Your task to perform on an android device: turn off airplane mode Image 0: 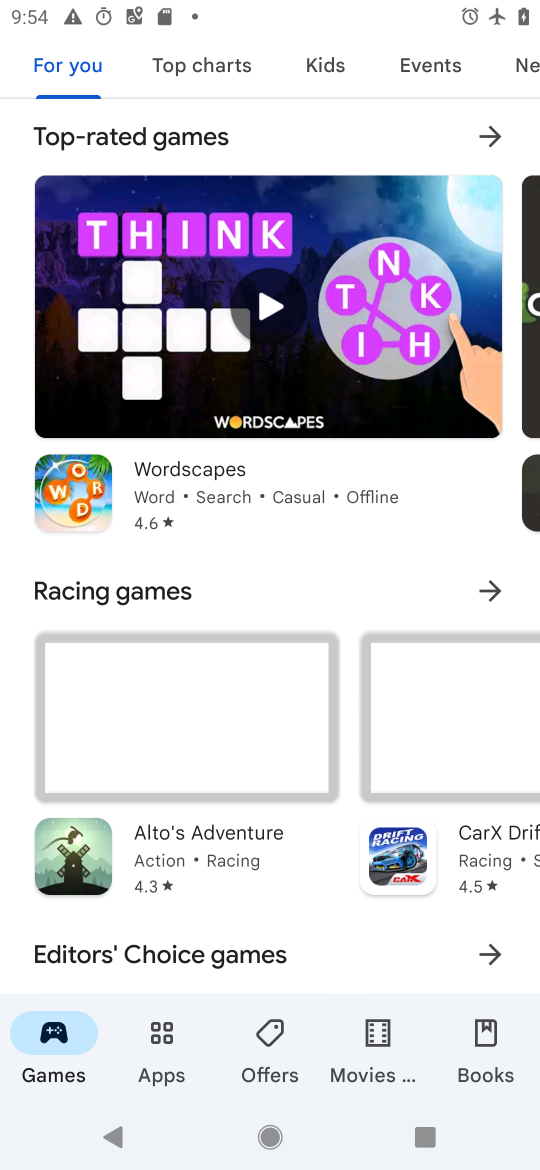
Step 0: press home button
Your task to perform on an android device: turn off airplane mode Image 1: 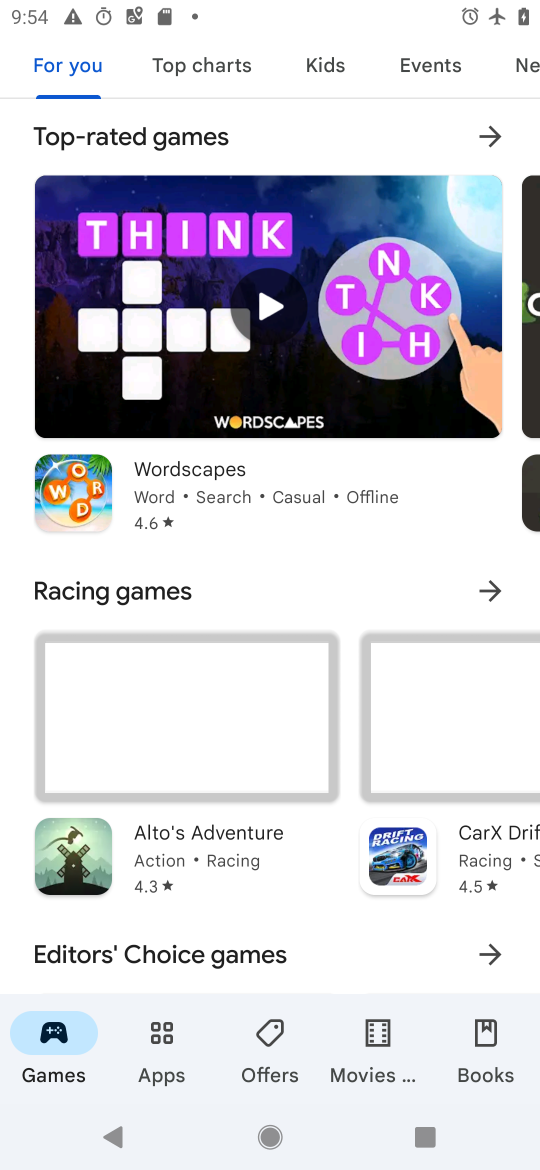
Step 1: drag from (349, 951) to (353, 206)
Your task to perform on an android device: turn off airplane mode Image 2: 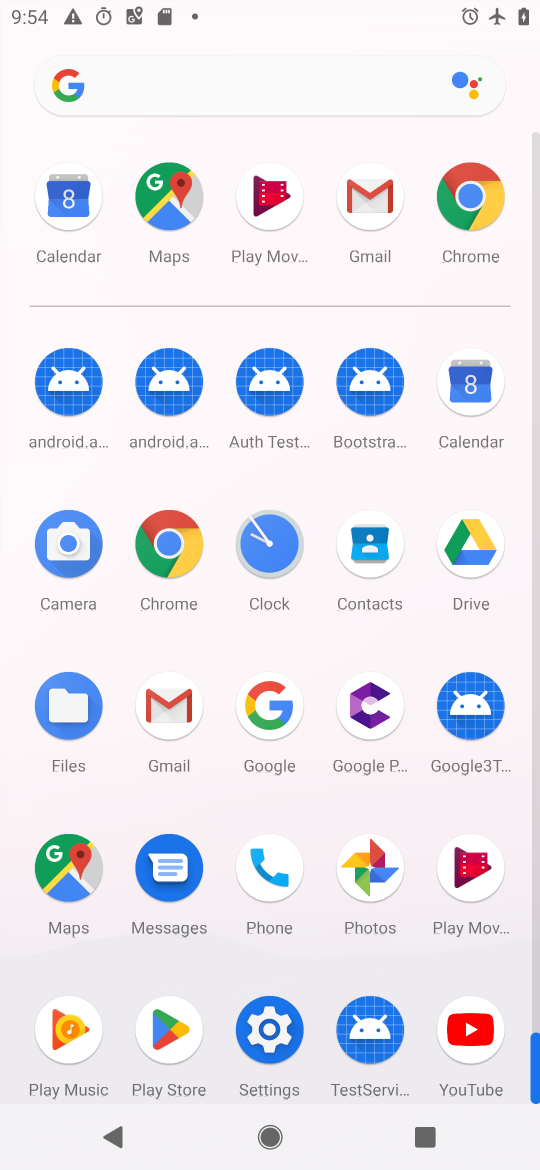
Step 2: drag from (308, 959) to (317, 250)
Your task to perform on an android device: turn off airplane mode Image 3: 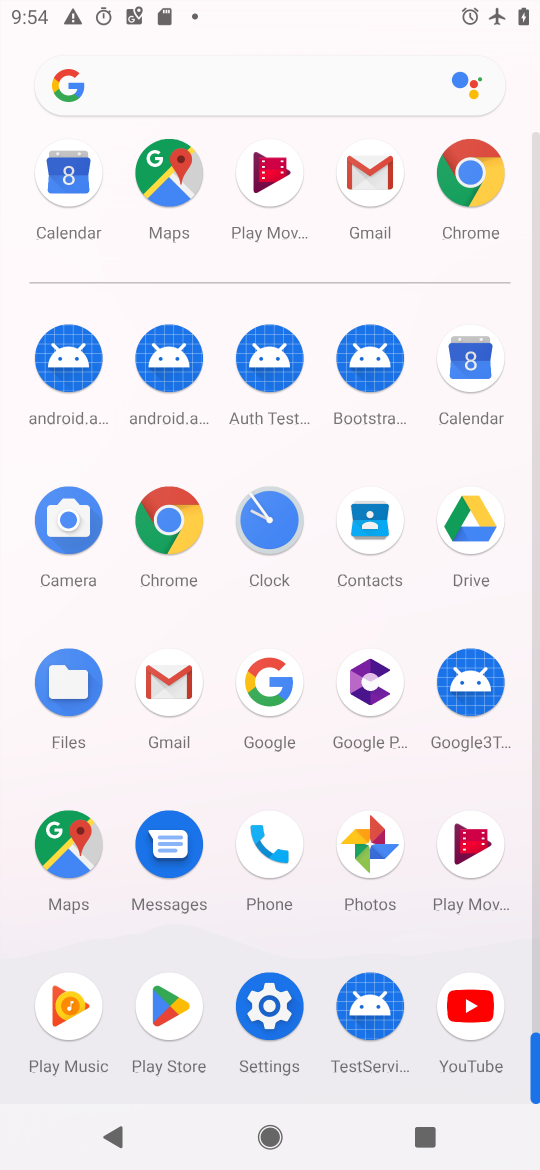
Step 3: click (268, 1011)
Your task to perform on an android device: turn off airplane mode Image 4: 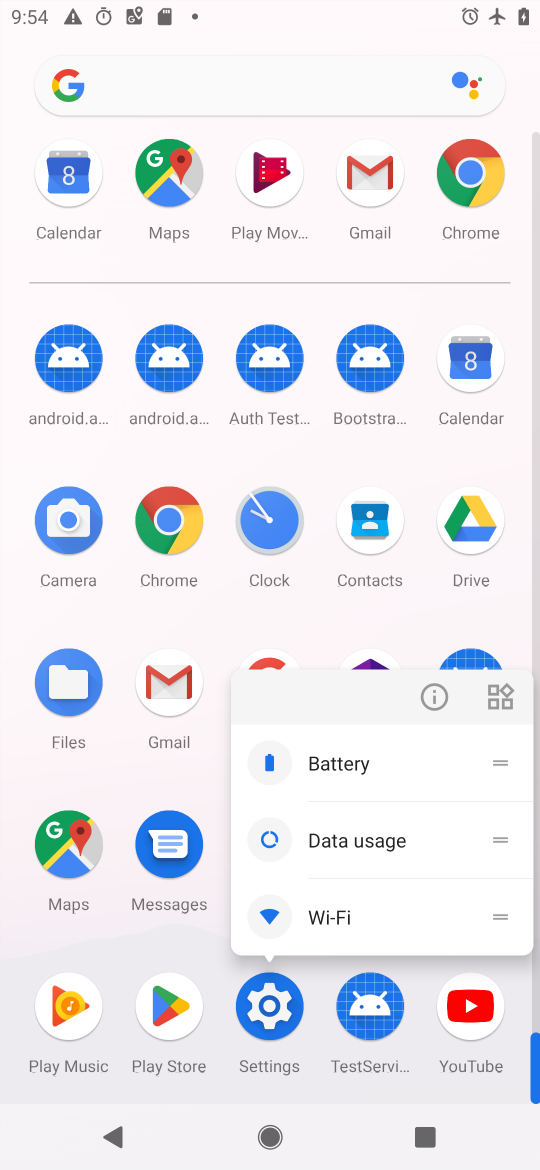
Step 4: click (436, 692)
Your task to perform on an android device: turn off airplane mode Image 5: 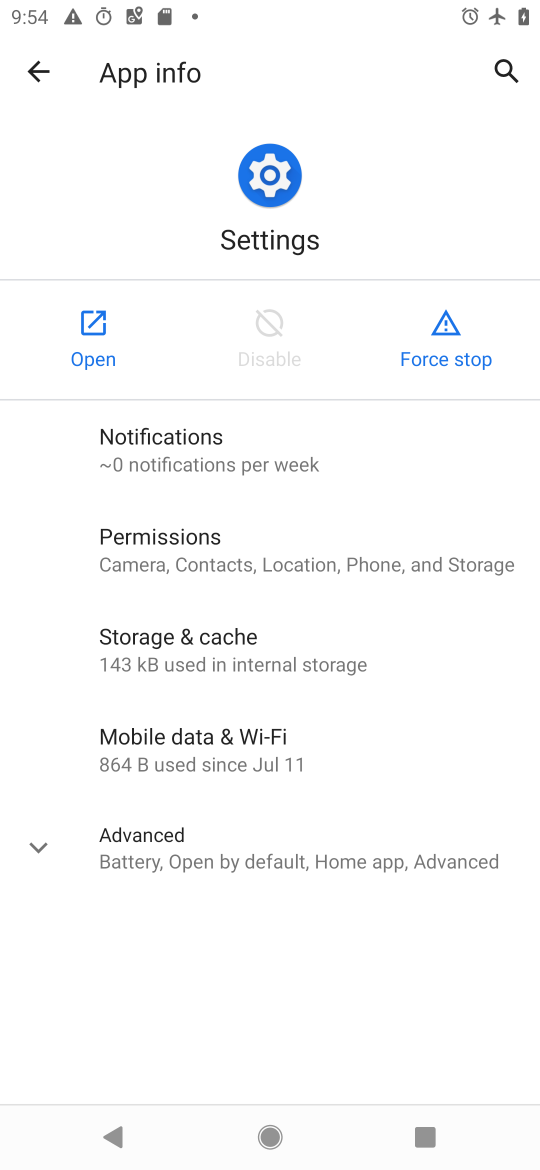
Step 5: click (80, 327)
Your task to perform on an android device: turn off airplane mode Image 6: 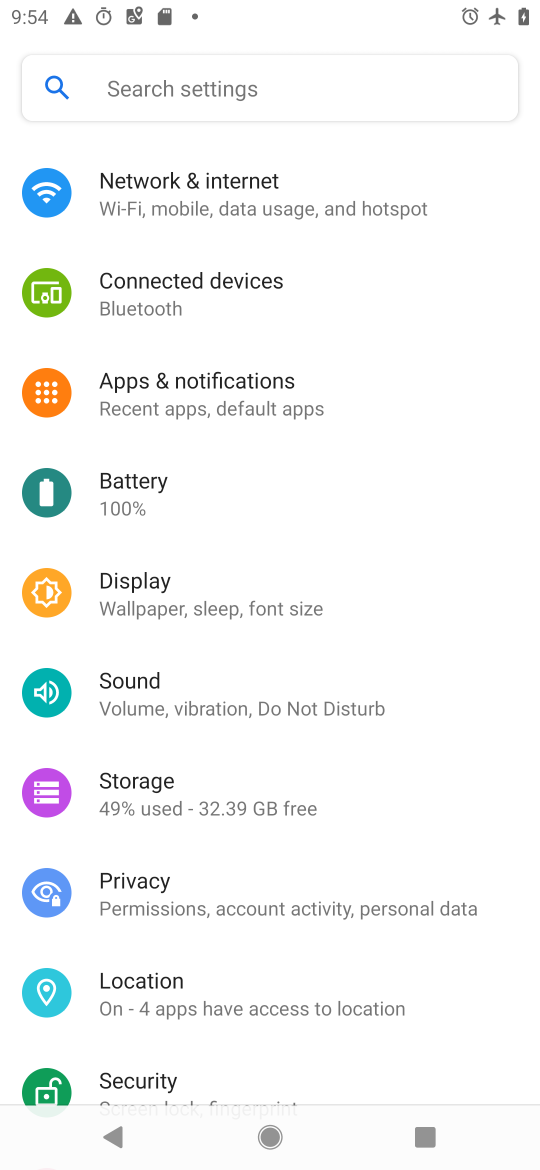
Step 6: click (233, 195)
Your task to perform on an android device: turn off airplane mode Image 7: 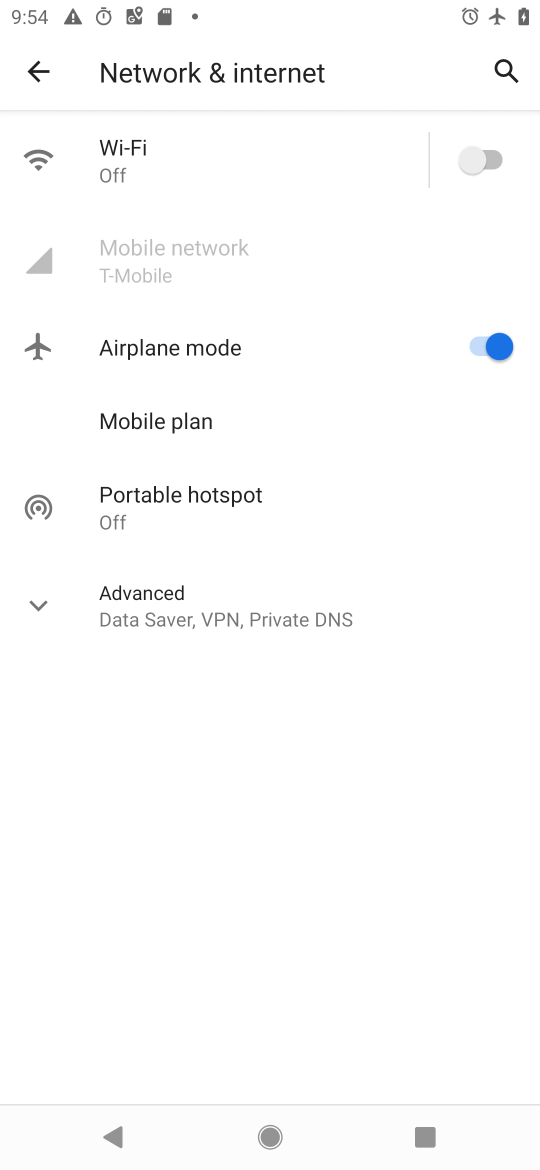
Step 7: drag from (357, 761) to (363, 222)
Your task to perform on an android device: turn off airplane mode Image 8: 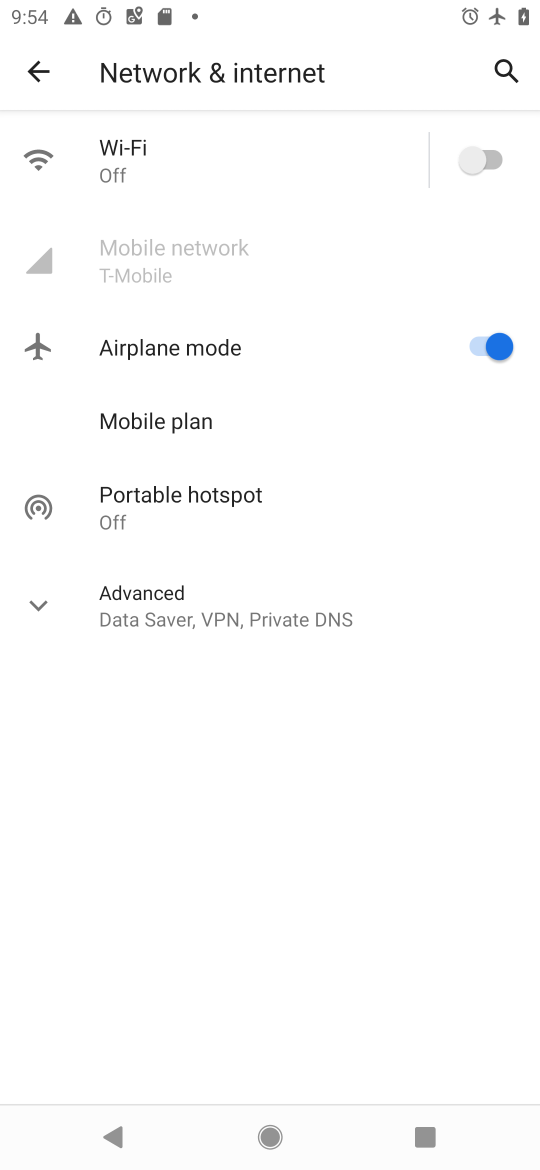
Step 8: drag from (333, 924) to (431, 433)
Your task to perform on an android device: turn off airplane mode Image 9: 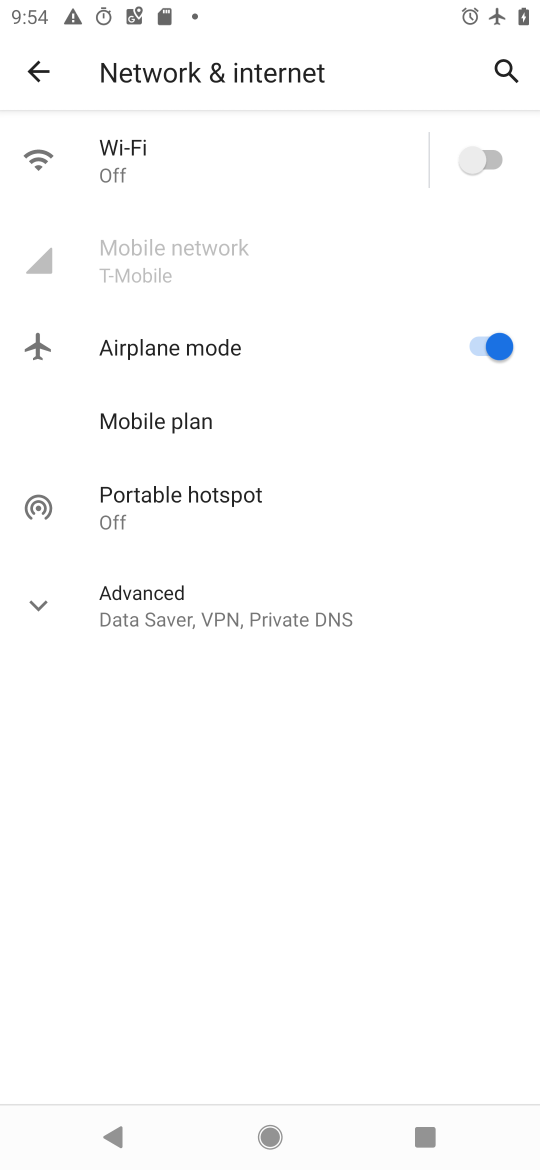
Step 9: click (476, 346)
Your task to perform on an android device: turn off airplane mode Image 10: 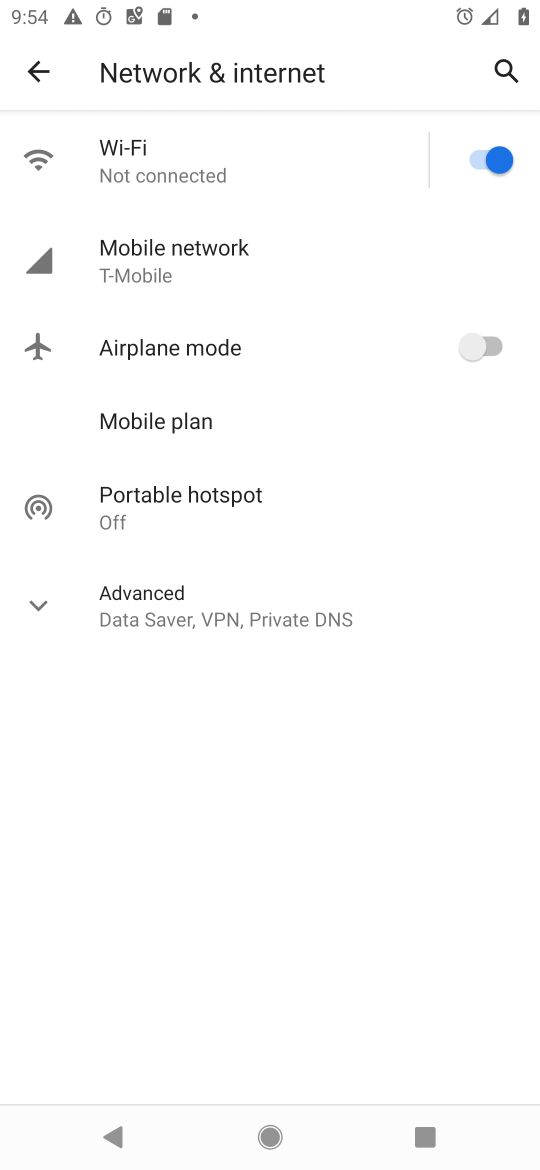
Step 10: task complete